Your task to perform on an android device: turn off sleep mode Image 0: 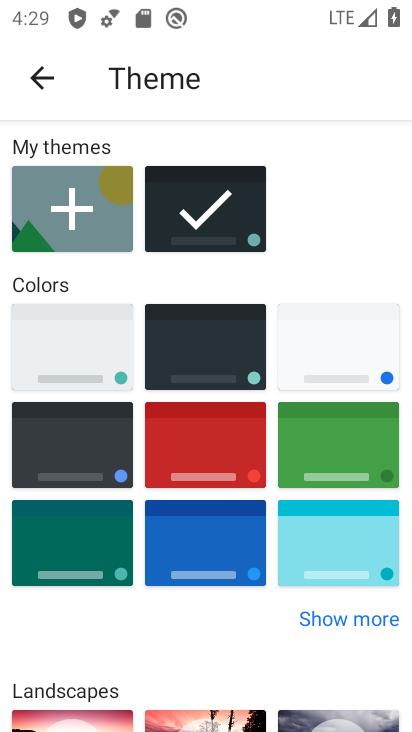
Step 0: press home button
Your task to perform on an android device: turn off sleep mode Image 1: 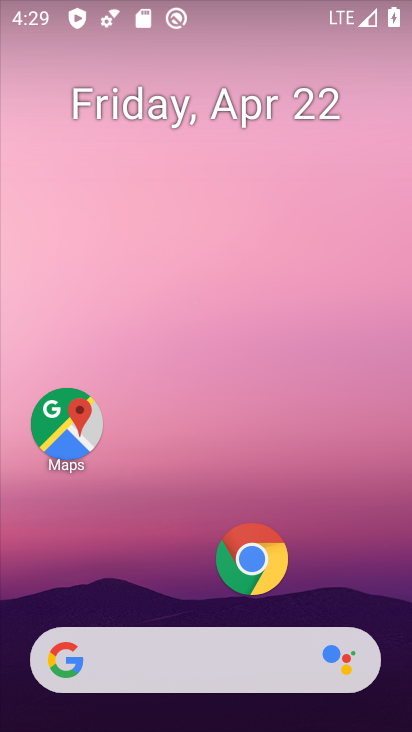
Step 1: drag from (156, 513) to (287, 1)
Your task to perform on an android device: turn off sleep mode Image 2: 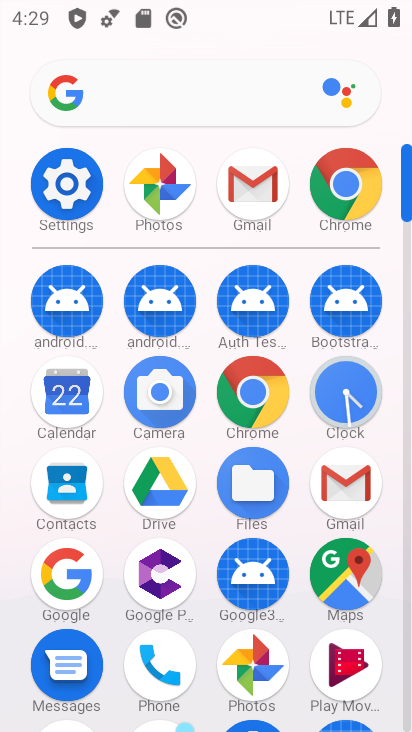
Step 2: click (68, 173)
Your task to perform on an android device: turn off sleep mode Image 3: 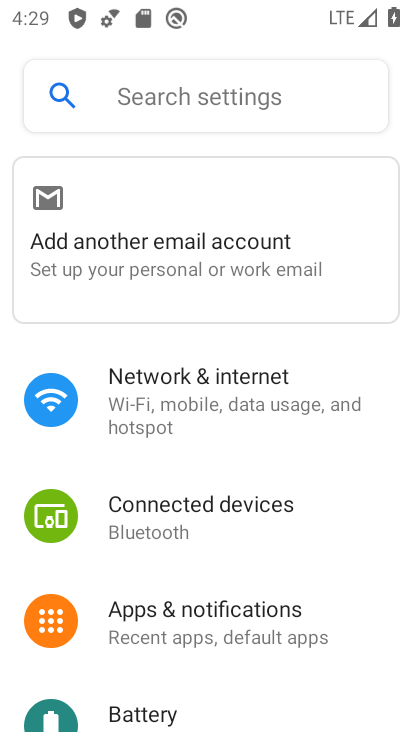
Step 3: click (200, 92)
Your task to perform on an android device: turn off sleep mode Image 4: 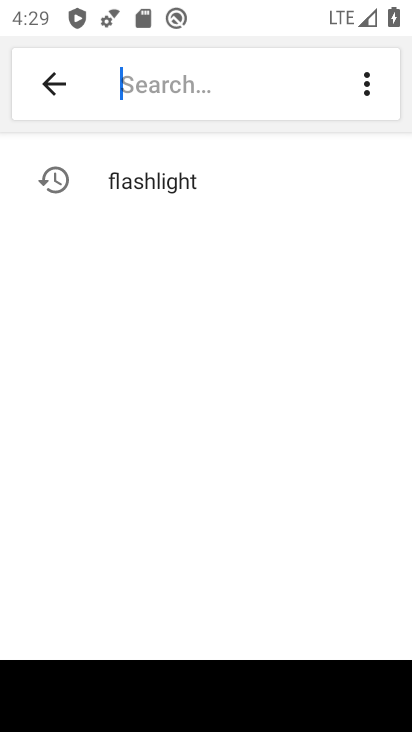
Step 4: type "sleep mode"
Your task to perform on an android device: turn off sleep mode Image 5: 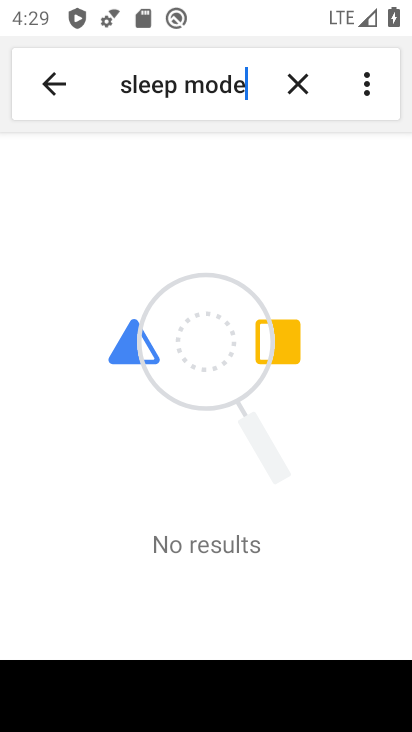
Step 5: task complete